Your task to perform on an android device: Show me productivity apps on the Play Store Image 0: 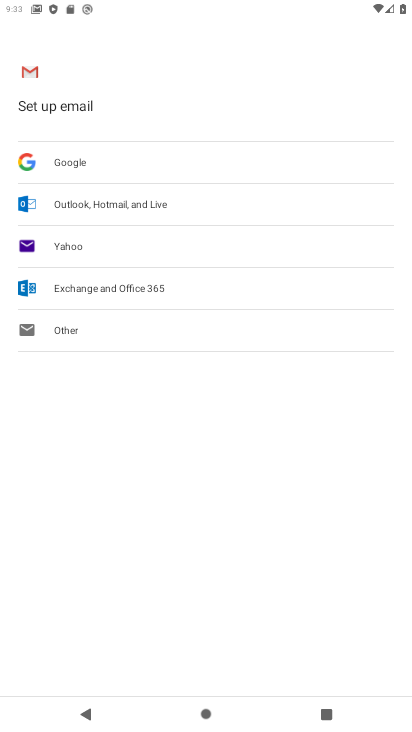
Step 0: press home button
Your task to perform on an android device: Show me productivity apps on the Play Store Image 1: 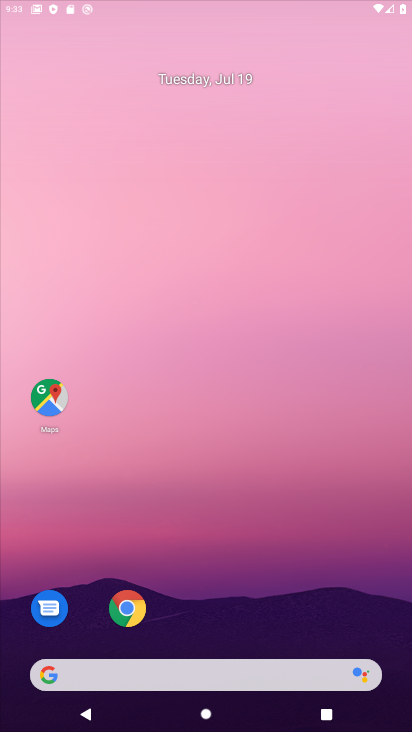
Step 1: drag from (307, 623) to (258, 97)
Your task to perform on an android device: Show me productivity apps on the Play Store Image 2: 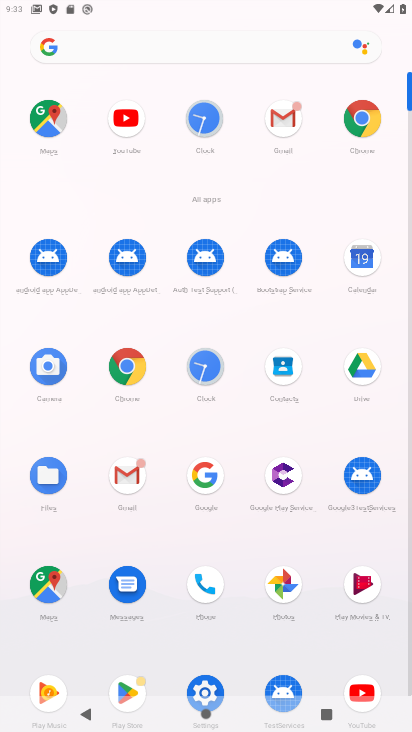
Step 2: click (122, 695)
Your task to perform on an android device: Show me productivity apps on the Play Store Image 3: 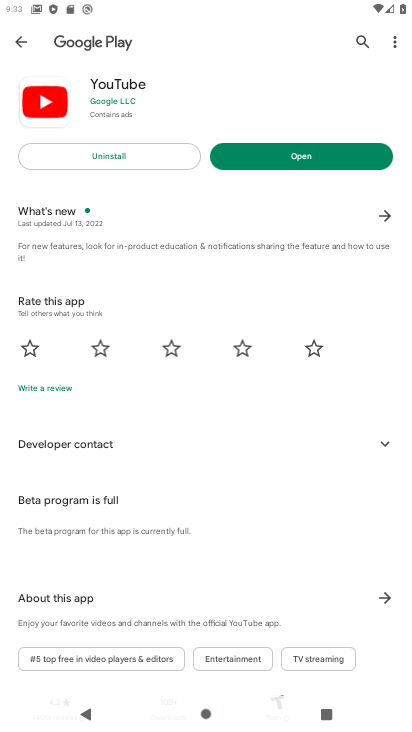
Step 3: click (30, 45)
Your task to perform on an android device: Show me productivity apps on the Play Store Image 4: 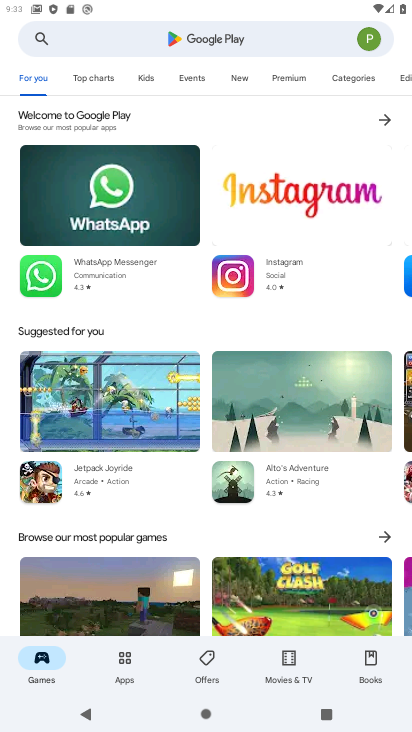
Step 4: click (139, 673)
Your task to perform on an android device: Show me productivity apps on the Play Store Image 5: 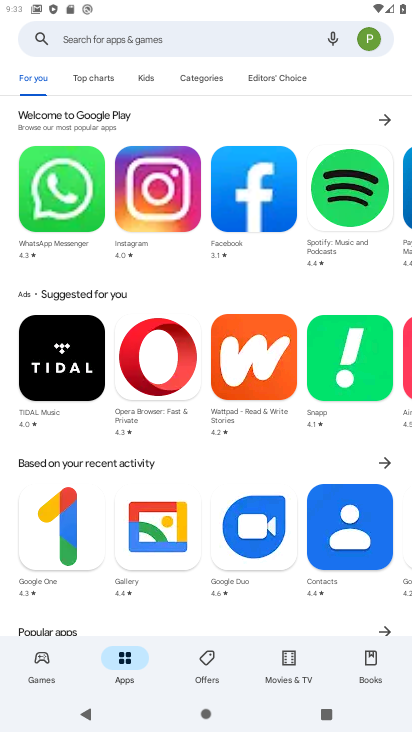
Step 5: task complete